Your task to perform on an android device: Search for pizza restaurants on Maps Image 0: 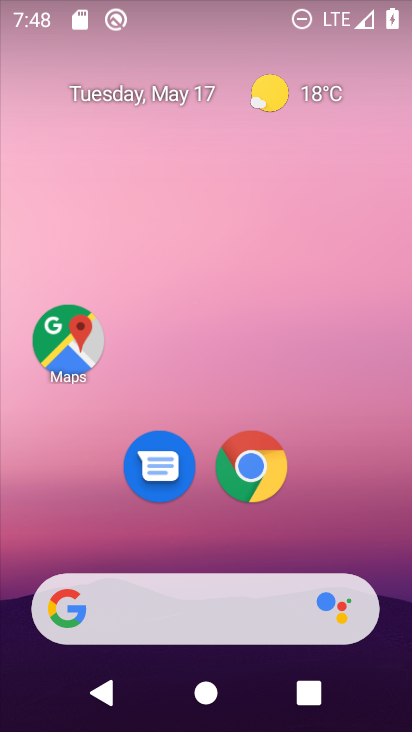
Step 0: press home button
Your task to perform on an android device: Search for pizza restaurants on Maps Image 1: 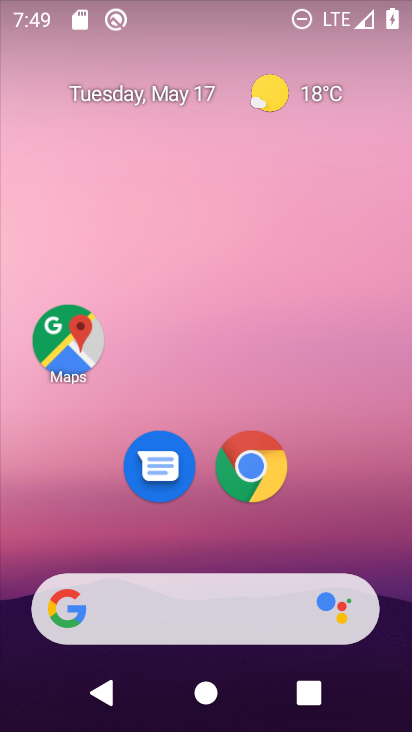
Step 1: click (80, 348)
Your task to perform on an android device: Search for pizza restaurants on Maps Image 2: 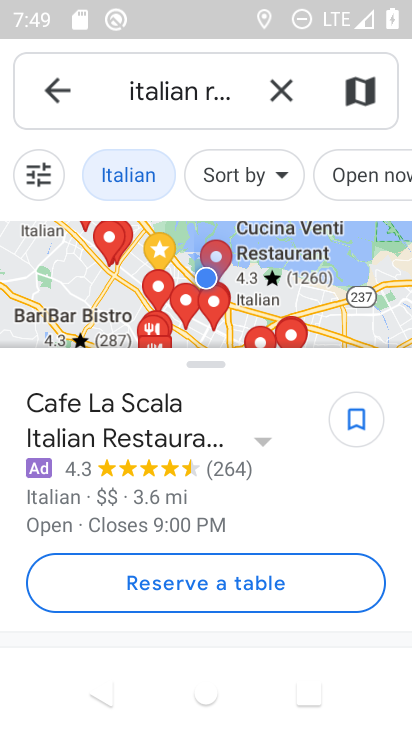
Step 2: click (283, 84)
Your task to perform on an android device: Search for pizza restaurants on Maps Image 3: 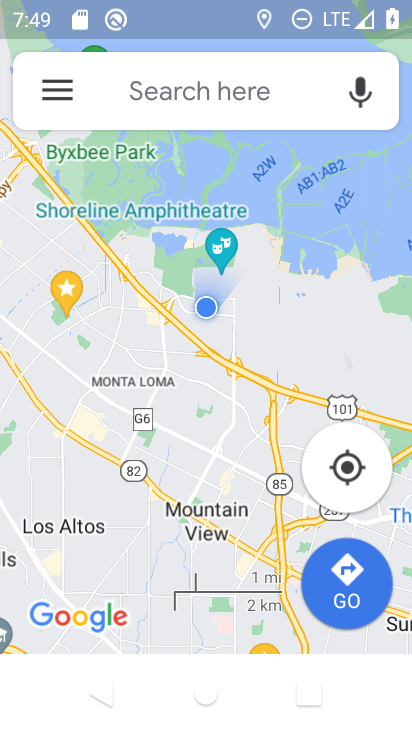
Step 3: click (161, 94)
Your task to perform on an android device: Search for pizza restaurants on Maps Image 4: 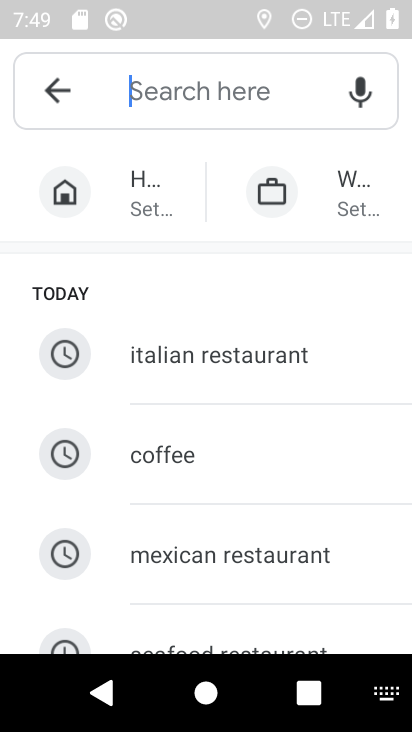
Step 4: drag from (239, 588) to (254, 241)
Your task to perform on an android device: Search for pizza restaurants on Maps Image 5: 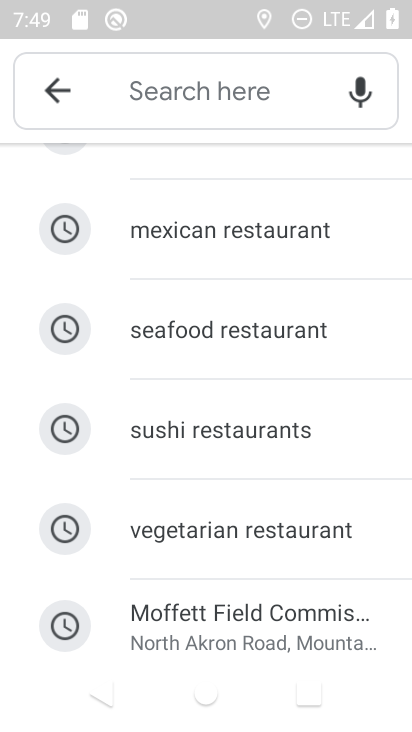
Step 5: drag from (242, 513) to (243, 576)
Your task to perform on an android device: Search for pizza restaurants on Maps Image 6: 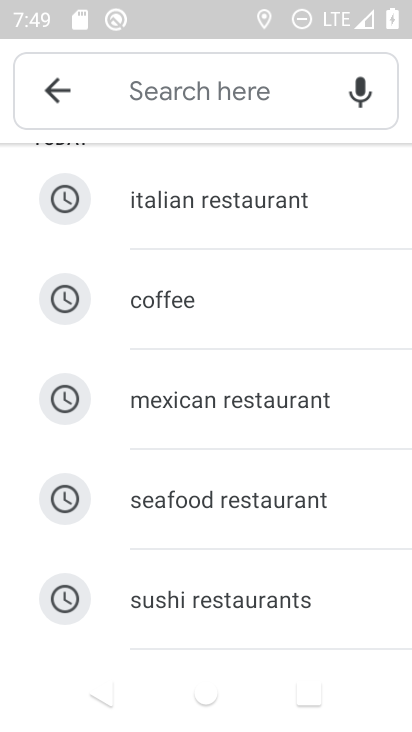
Step 6: click (200, 90)
Your task to perform on an android device: Search for pizza restaurants on Maps Image 7: 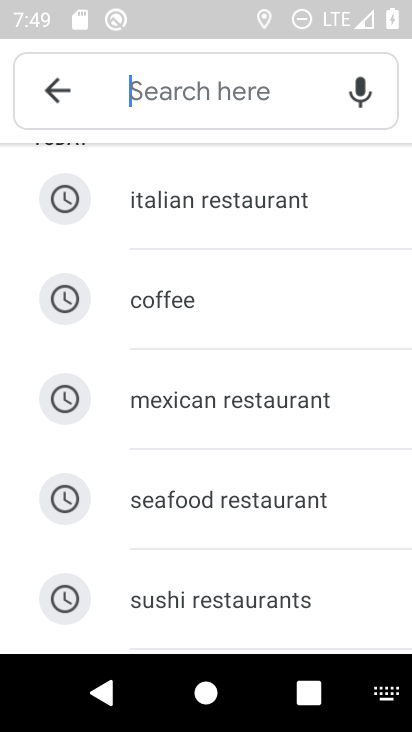
Step 7: type "pizza"
Your task to perform on an android device: Search for pizza restaurants on Maps Image 8: 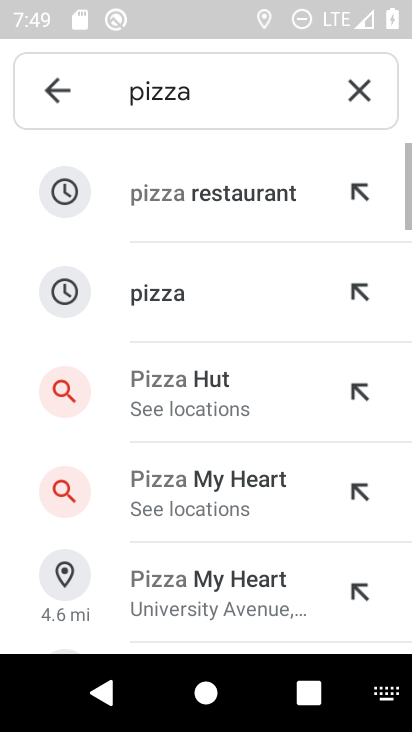
Step 8: click (198, 198)
Your task to perform on an android device: Search for pizza restaurants on Maps Image 9: 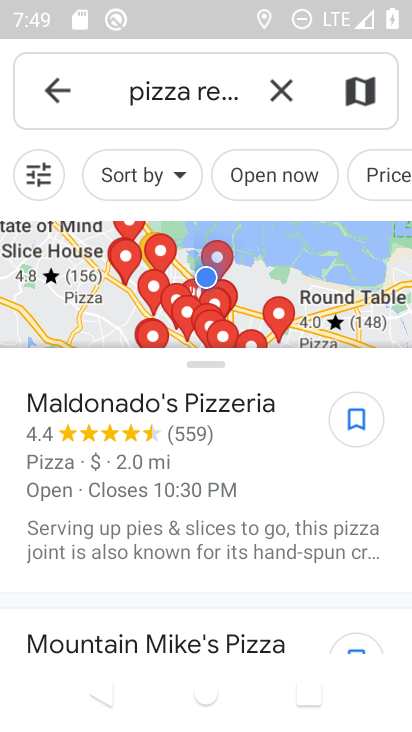
Step 9: task complete